Your task to perform on an android device: What's on my calendar tomorrow? Image 0: 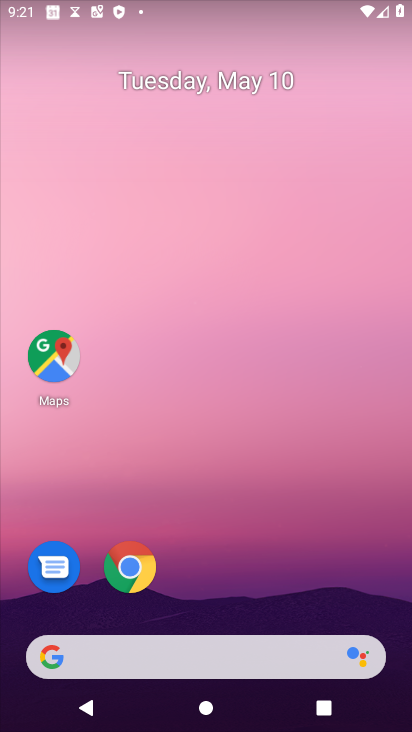
Step 0: drag from (0, 617) to (219, 209)
Your task to perform on an android device: What's on my calendar tomorrow? Image 1: 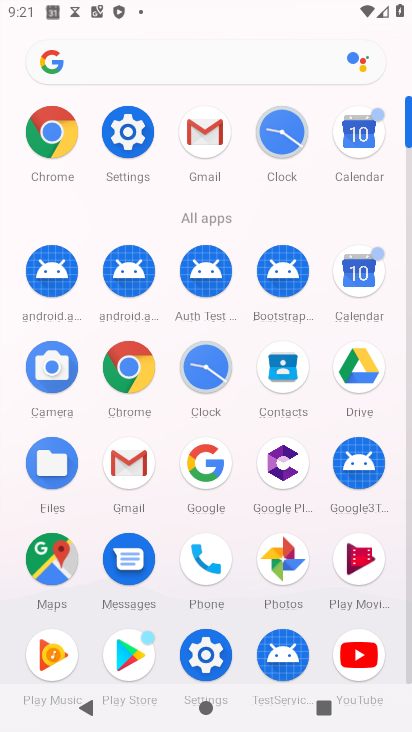
Step 1: click (354, 136)
Your task to perform on an android device: What's on my calendar tomorrow? Image 2: 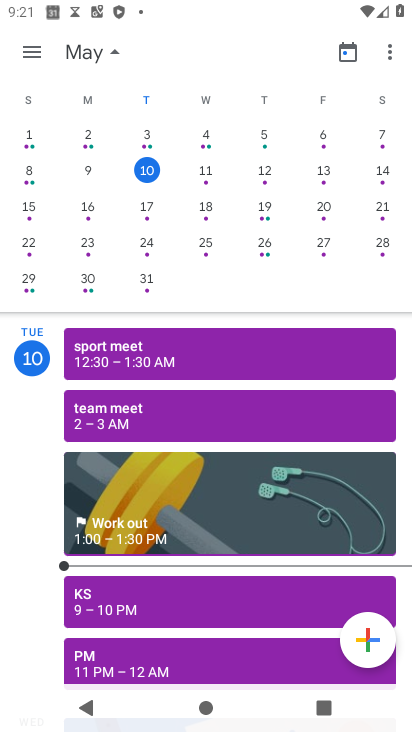
Step 2: click (196, 180)
Your task to perform on an android device: What's on my calendar tomorrow? Image 3: 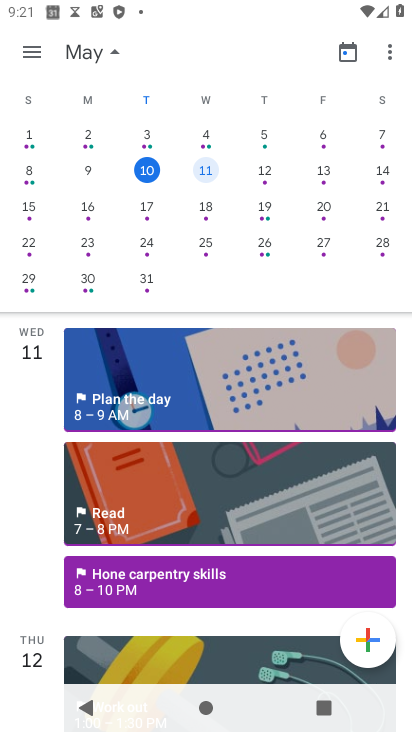
Step 3: click (205, 166)
Your task to perform on an android device: What's on my calendar tomorrow? Image 4: 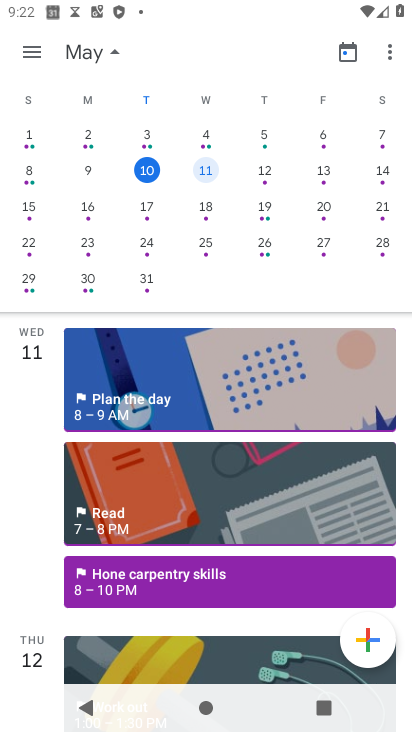
Step 4: task complete